Your task to perform on an android device: turn notification dots off Image 0: 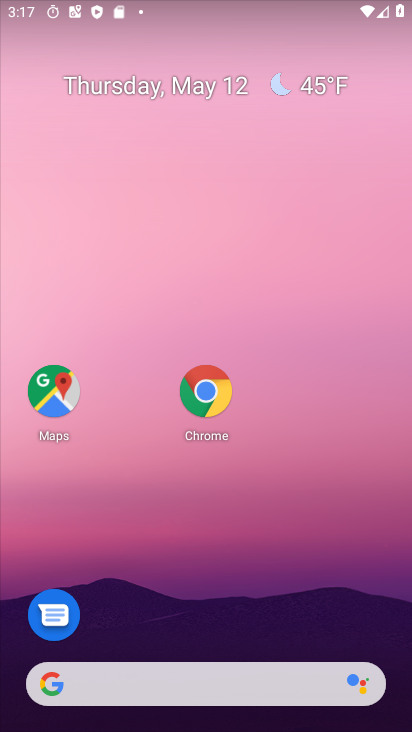
Step 0: drag from (190, 480) to (211, 121)
Your task to perform on an android device: turn notification dots off Image 1: 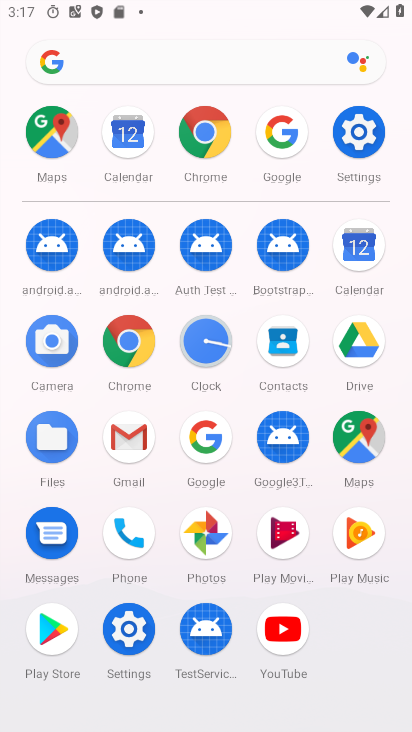
Step 1: click (361, 132)
Your task to perform on an android device: turn notification dots off Image 2: 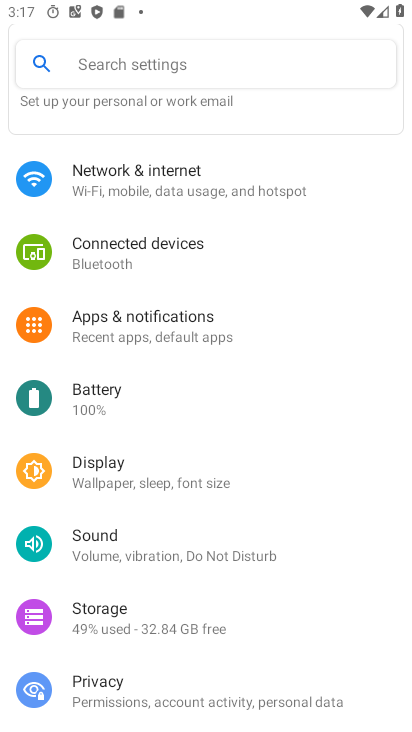
Step 2: click (172, 325)
Your task to perform on an android device: turn notification dots off Image 3: 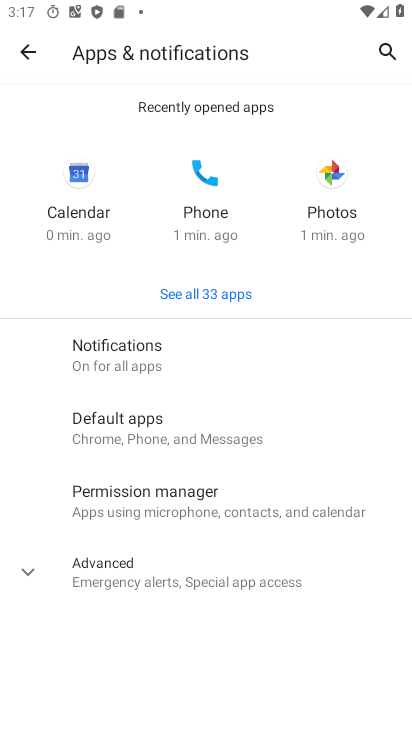
Step 3: click (159, 353)
Your task to perform on an android device: turn notification dots off Image 4: 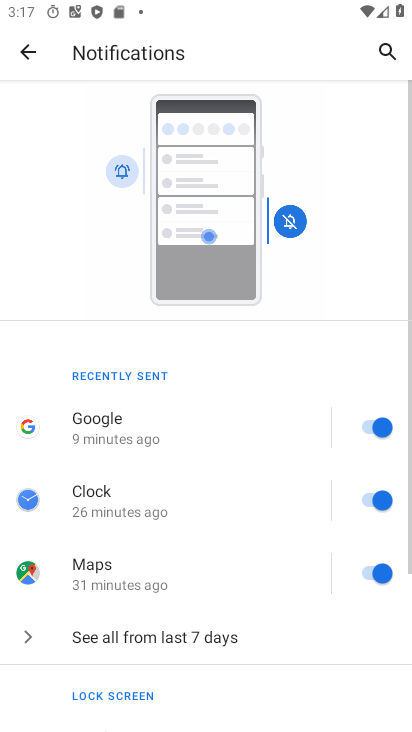
Step 4: drag from (220, 547) to (245, 166)
Your task to perform on an android device: turn notification dots off Image 5: 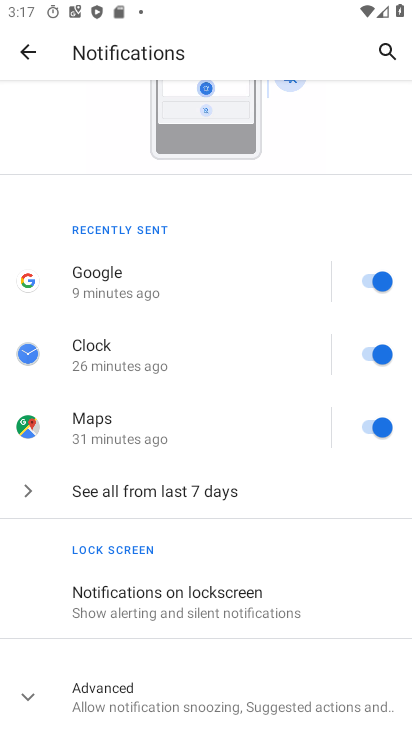
Step 5: click (130, 685)
Your task to perform on an android device: turn notification dots off Image 6: 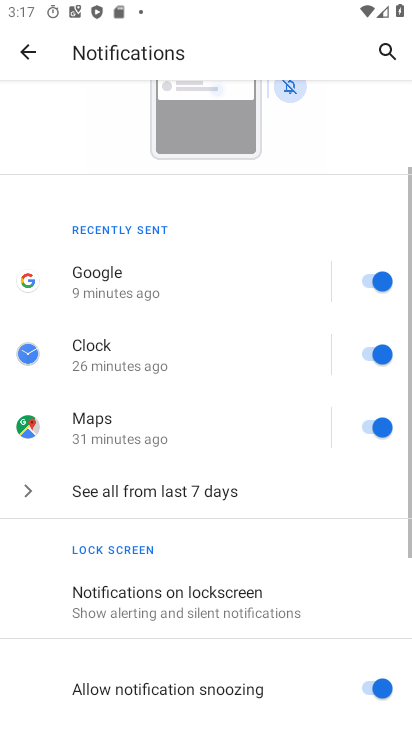
Step 6: task complete